Your task to perform on an android device: Open settings on Google Maps Image 0: 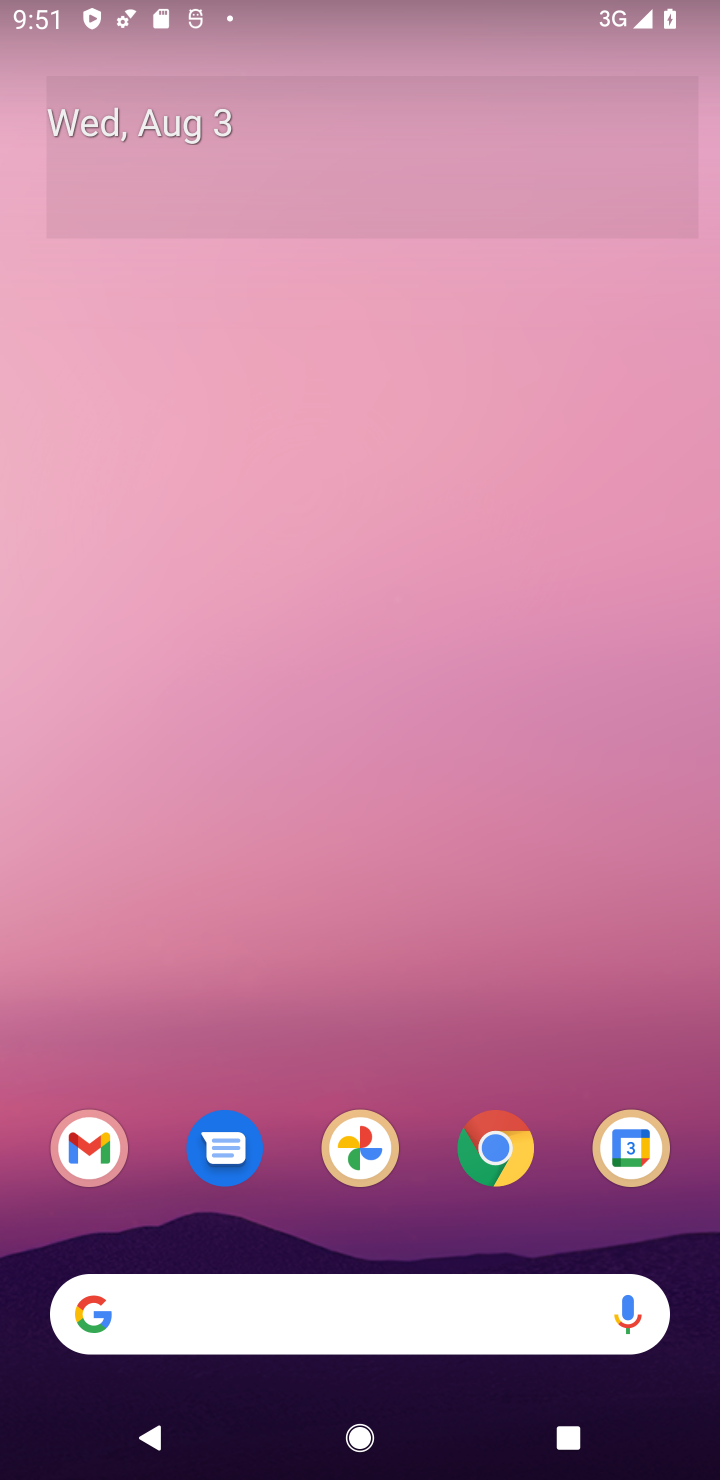
Step 0: drag from (377, 1003) to (461, 287)
Your task to perform on an android device: Open settings on Google Maps Image 1: 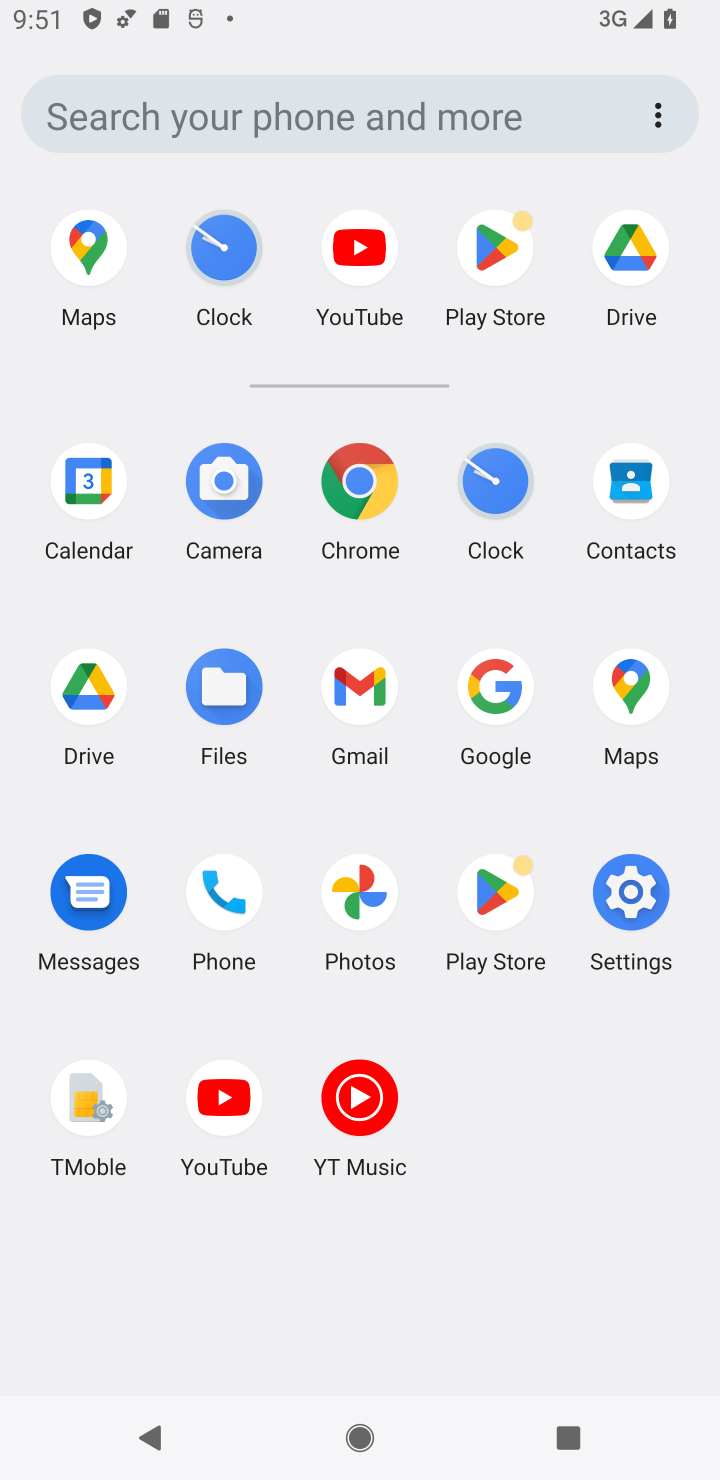
Step 1: click (635, 698)
Your task to perform on an android device: Open settings on Google Maps Image 2: 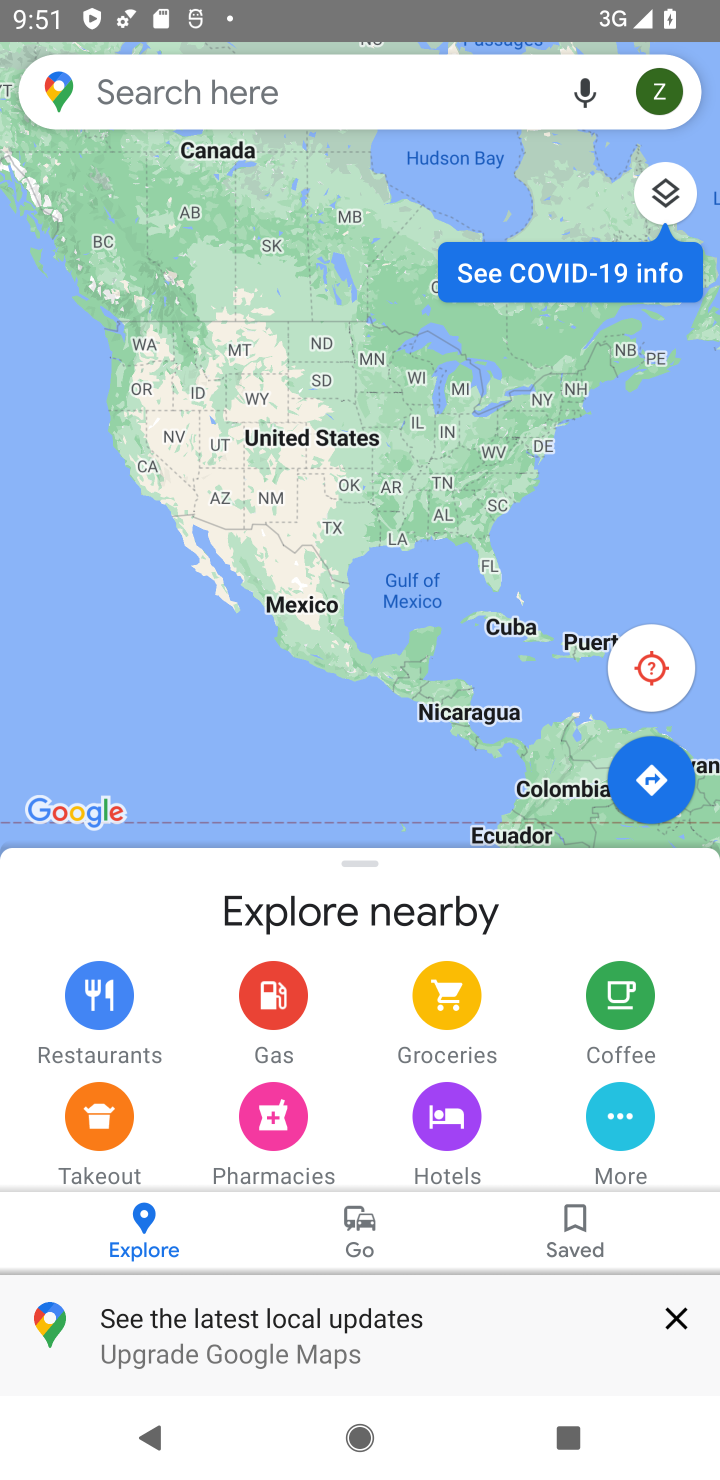
Step 2: click (660, 99)
Your task to perform on an android device: Open settings on Google Maps Image 3: 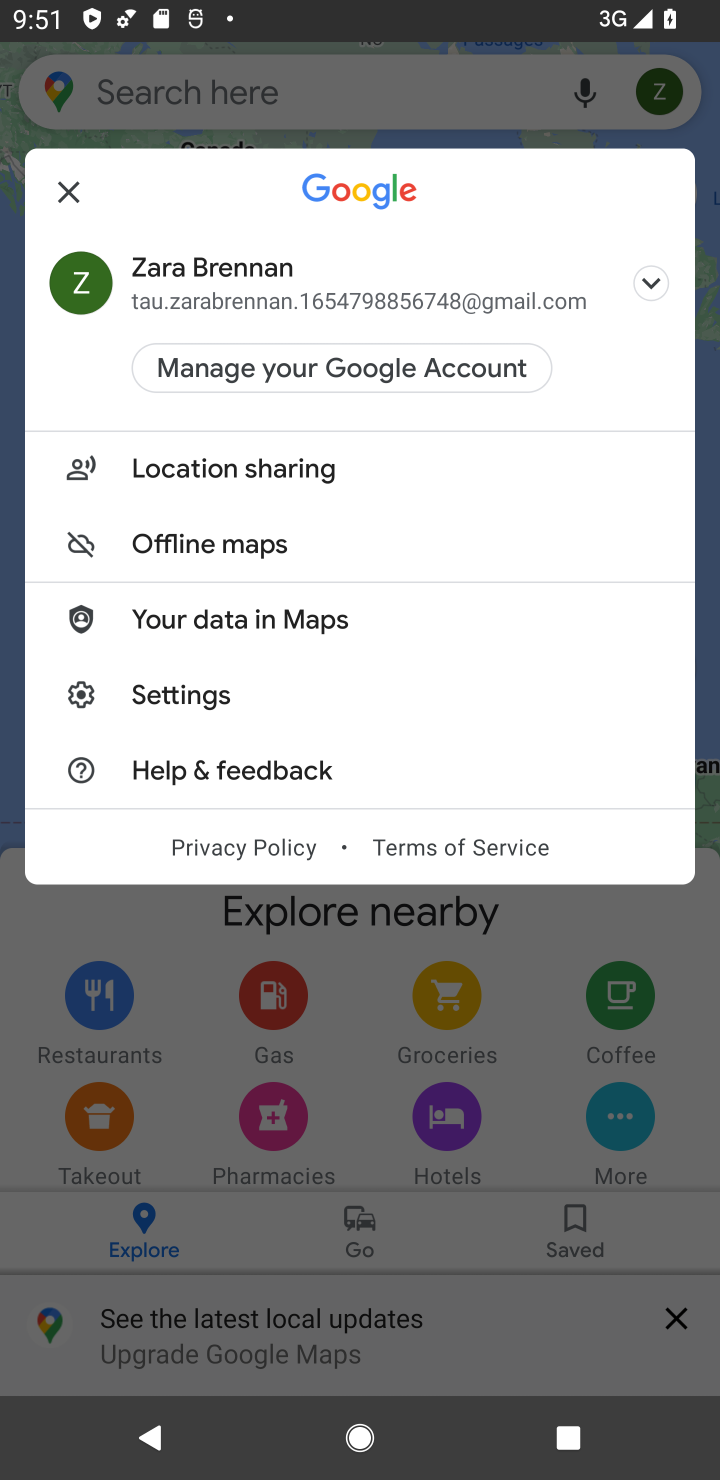
Step 3: click (202, 695)
Your task to perform on an android device: Open settings on Google Maps Image 4: 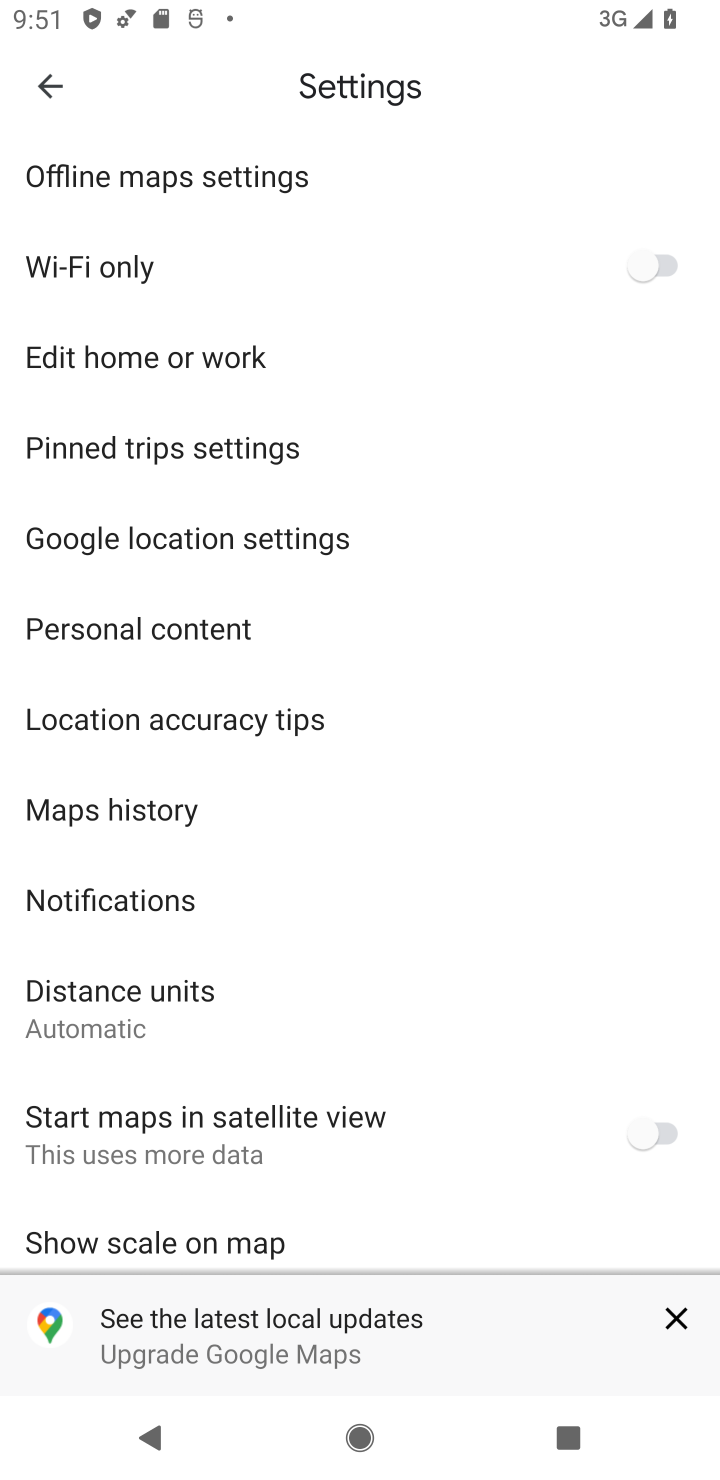
Step 4: task complete